Your task to perform on an android device: Check the weather Image 0: 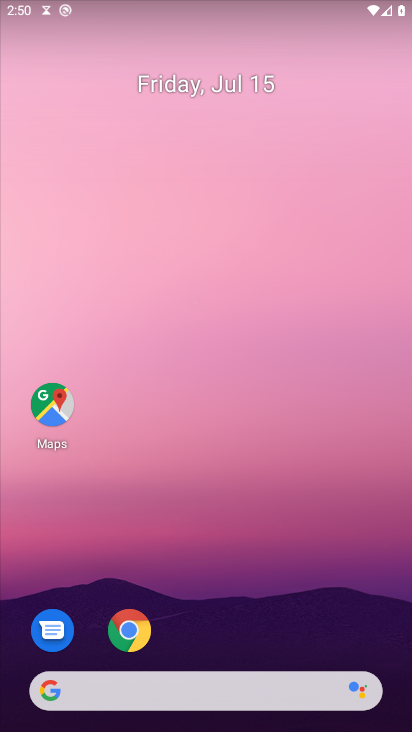
Step 0: click (61, 695)
Your task to perform on an android device: Check the weather Image 1: 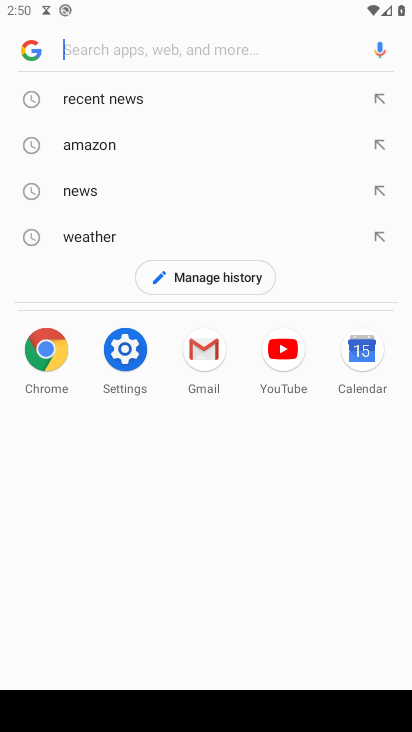
Step 1: click (92, 234)
Your task to perform on an android device: Check the weather Image 2: 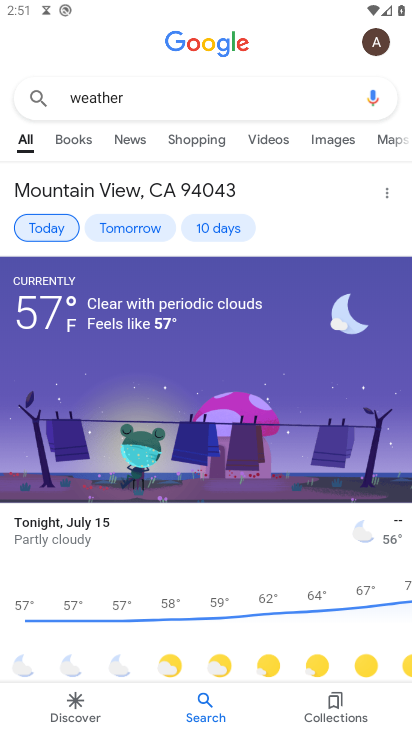
Step 2: task complete